Your task to perform on an android device: Open the web browser Image 0: 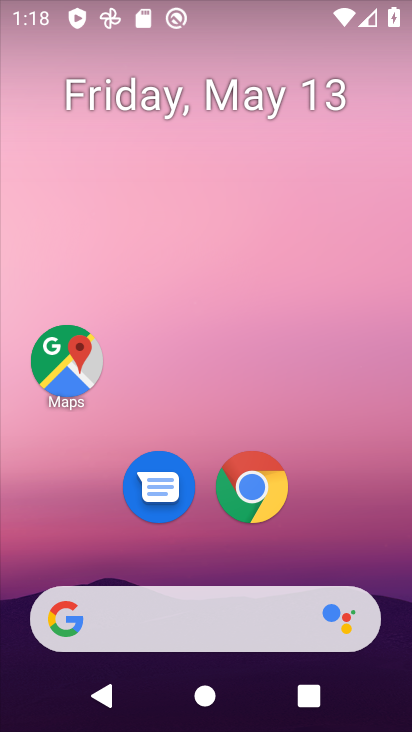
Step 0: drag from (312, 510) to (288, 164)
Your task to perform on an android device: Open the web browser Image 1: 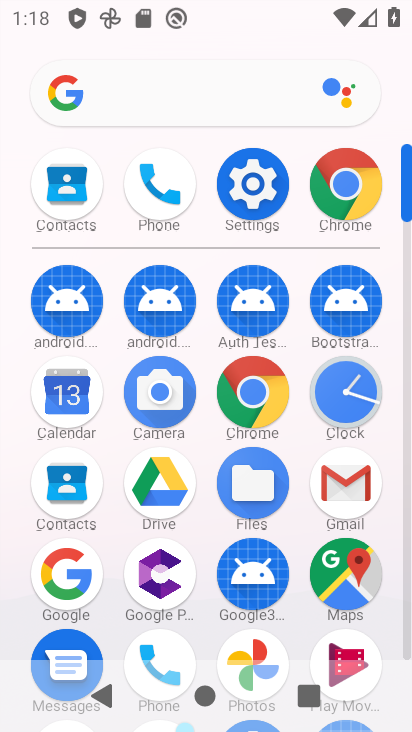
Step 1: click (243, 394)
Your task to perform on an android device: Open the web browser Image 2: 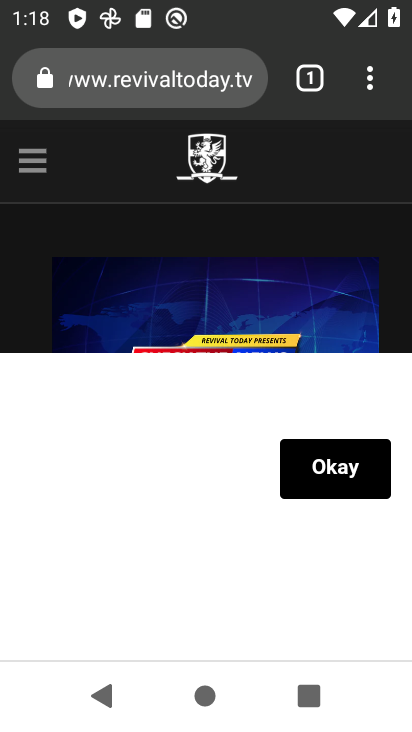
Step 2: task complete